Your task to perform on an android device: When is my next appointment? Image 0: 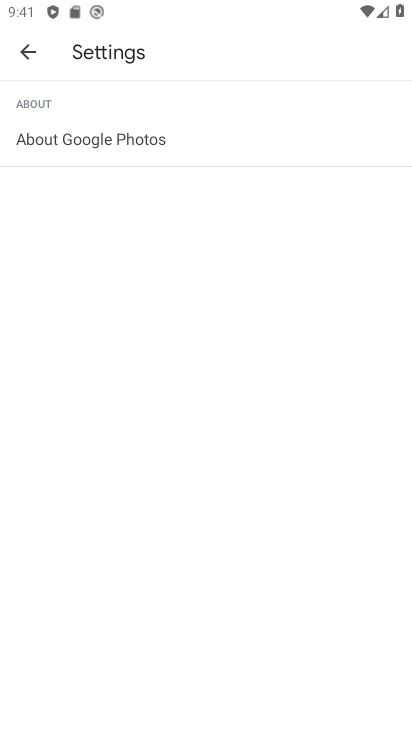
Step 0: press home button
Your task to perform on an android device: When is my next appointment? Image 1: 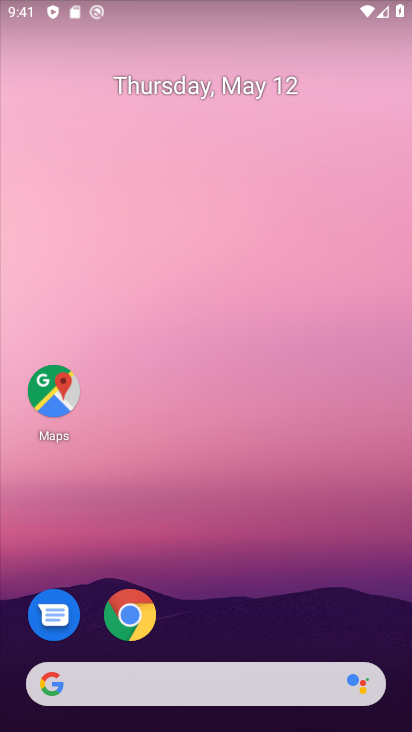
Step 1: drag from (206, 725) to (207, 151)
Your task to perform on an android device: When is my next appointment? Image 2: 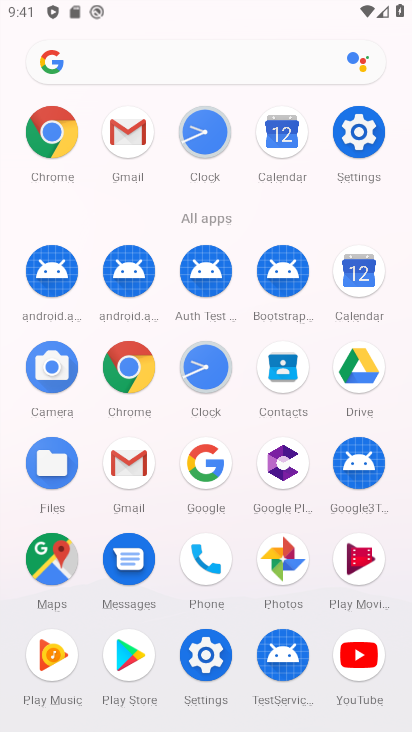
Step 2: click (357, 261)
Your task to perform on an android device: When is my next appointment? Image 3: 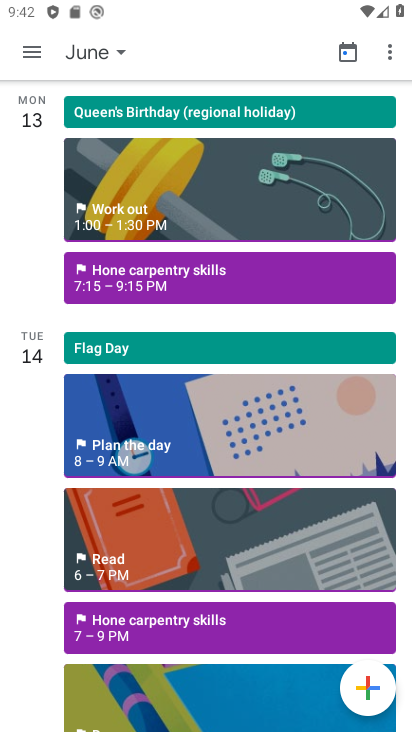
Step 3: click (82, 46)
Your task to perform on an android device: When is my next appointment? Image 4: 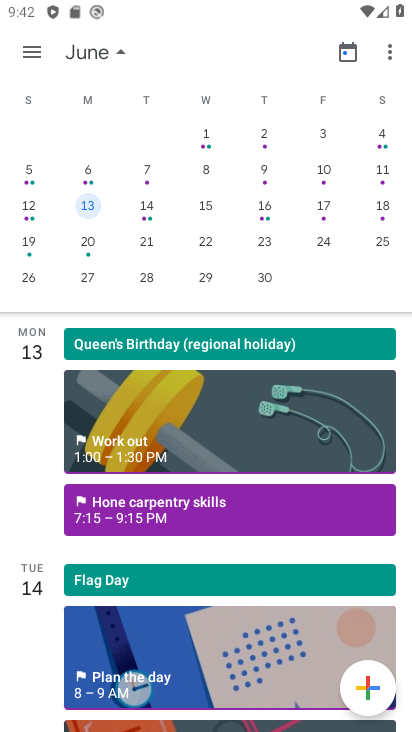
Step 4: drag from (54, 199) to (401, 216)
Your task to perform on an android device: When is my next appointment? Image 5: 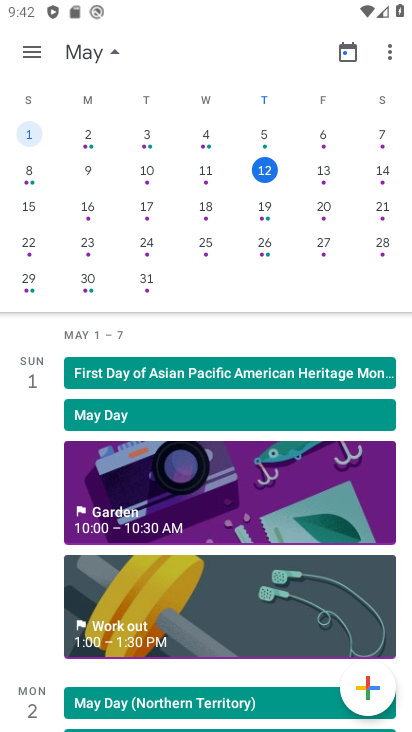
Step 5: click (323, 168)
Your task to perform on an android device: When is my next appointment? Image 6: 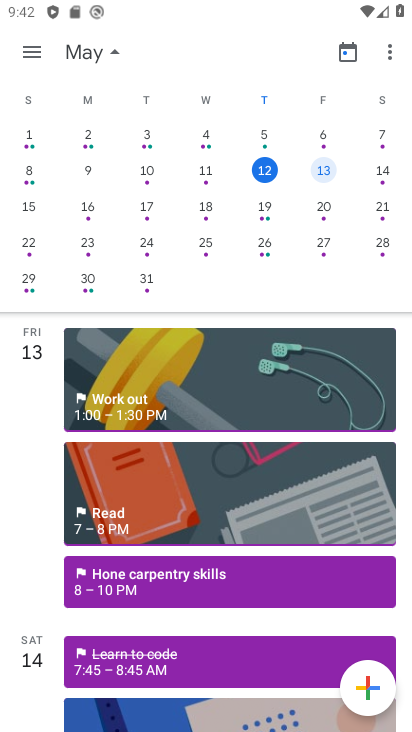
Step 6: click (116, 49)
Your task to perform on an android device: When is my next appointment? Image 7: 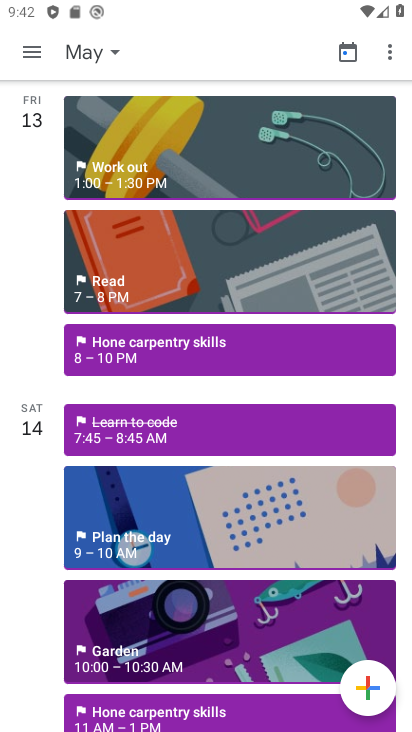
Step 7: task complete